Your task to perform on an android device: set the timer Image 0: 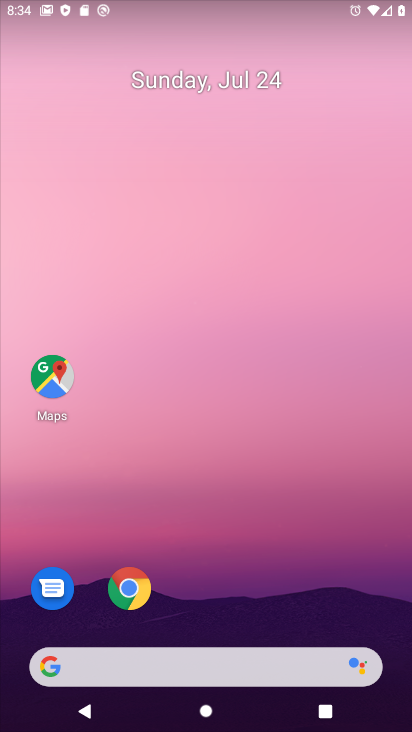
Step 0: press home button
Your task to perform on an android device: set the timer Image 1: 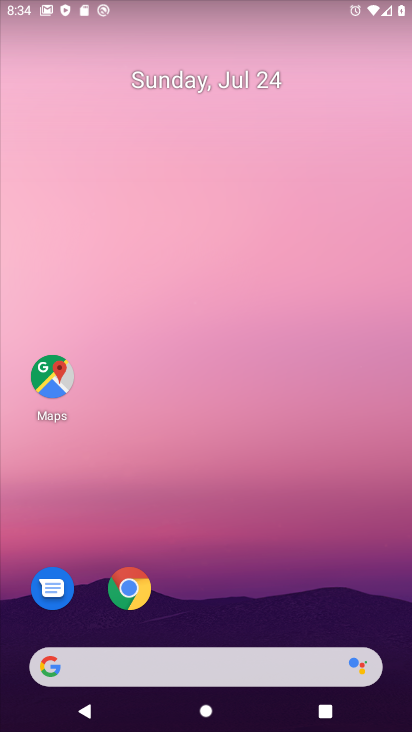
Step 1: drag from (226, 631) to (239, 99)
Your task to perform on an android device: set the timer Image 2: 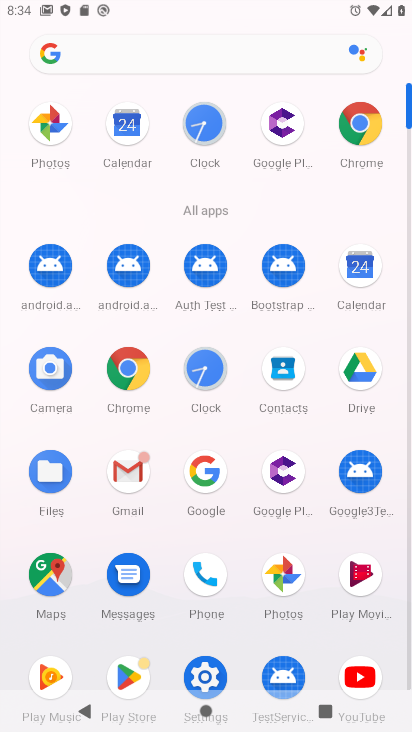
Step 2: click (199, 117)
Your task to perform on an android device: set the timer Image 3: 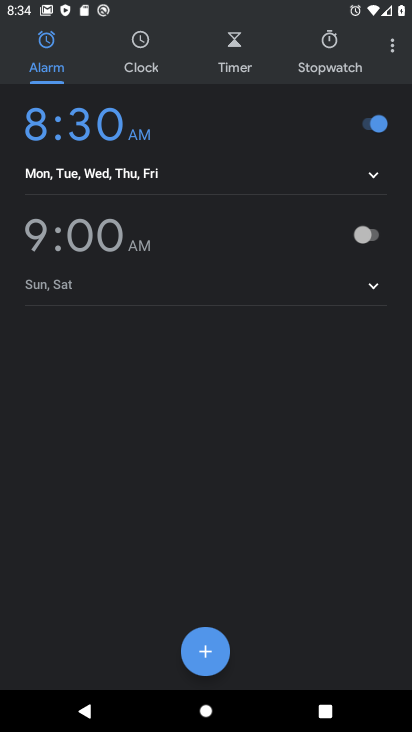
Step 3: click (235, 39)
Your task to perform on an android device: set the timer Image 4: 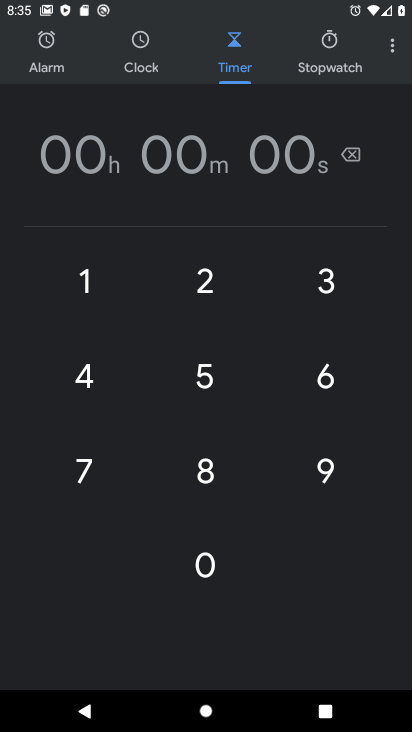
Step 4: click (212, 298)
Your task to perform on an android device: set the timer Image 5: 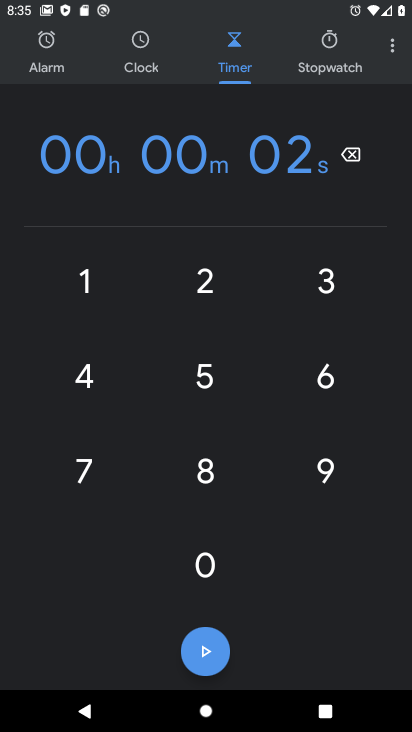
Step 5: click (204, 569)
Your task to perform on an android device: set the timer Image 6: 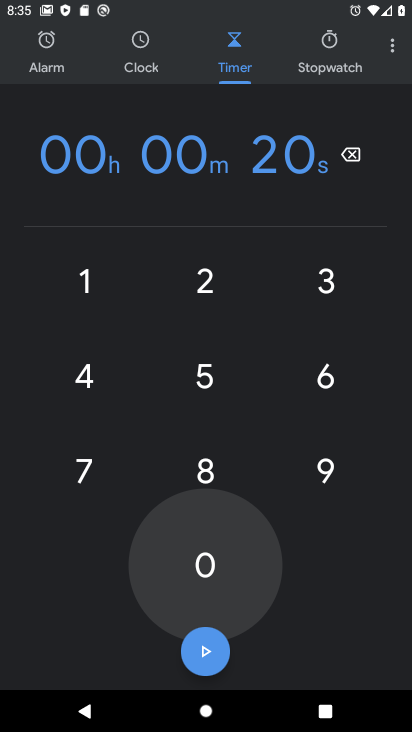
Step 6: click (204, 569)
Your task to perform on an android device: set the timer Image 7: 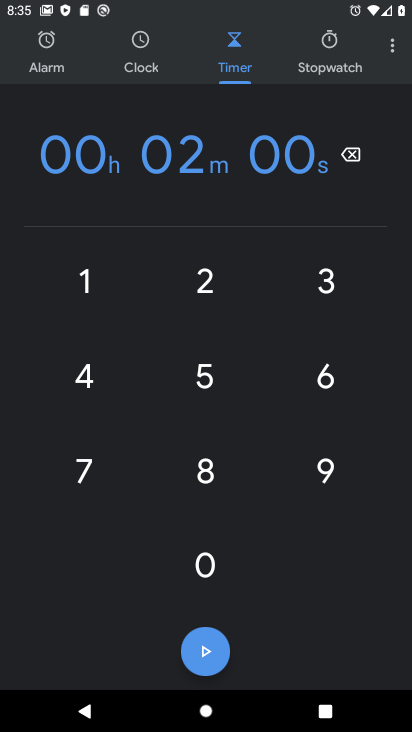
Step 7: click (204, 569)
Your task to perform on an android device: set the timer Image 8: 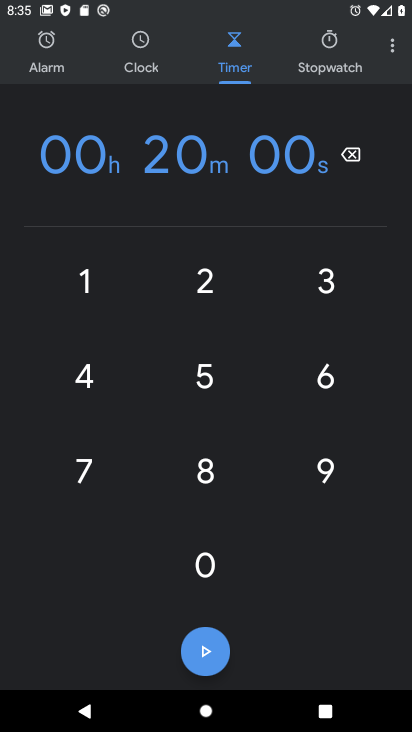
Step 8: click (202, 641)
Your task to perform on an android device: set the timer Image 9: 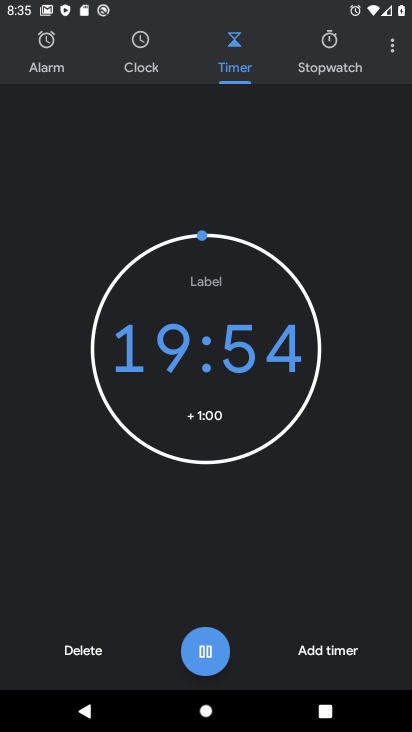
Step 9: task complete